Your task to perform on an android device: set default search engine in the chrome app Image 0: 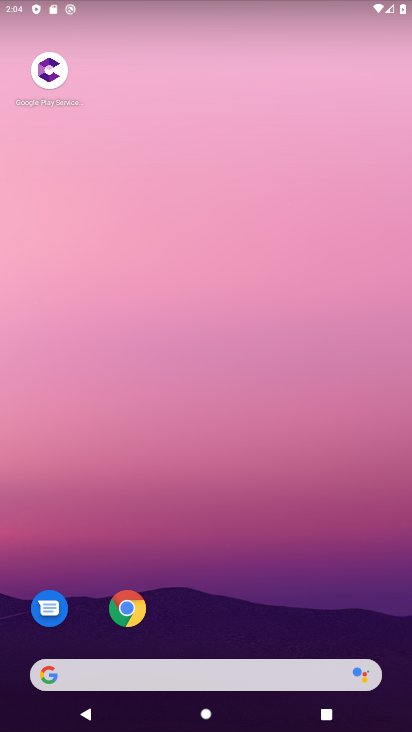
Step 0: drag from (167, 625) to (167, 10)
Your task to perform on an android device: set default search engine in the chrome app Image 1: 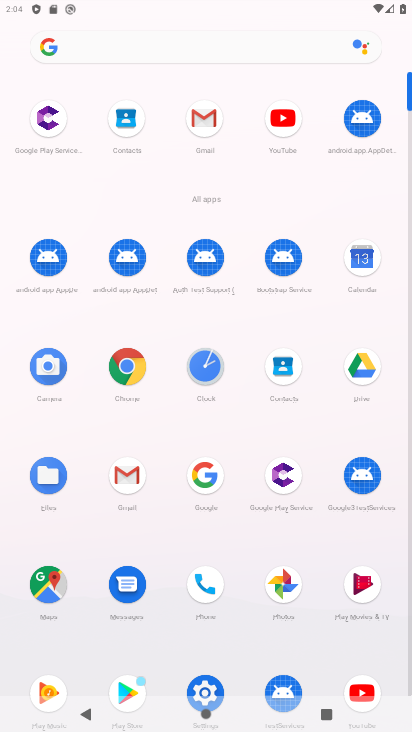
Step 1: click (121, 370)
Your task to perform on an android device: set default search engine in the chrome app Image 2: 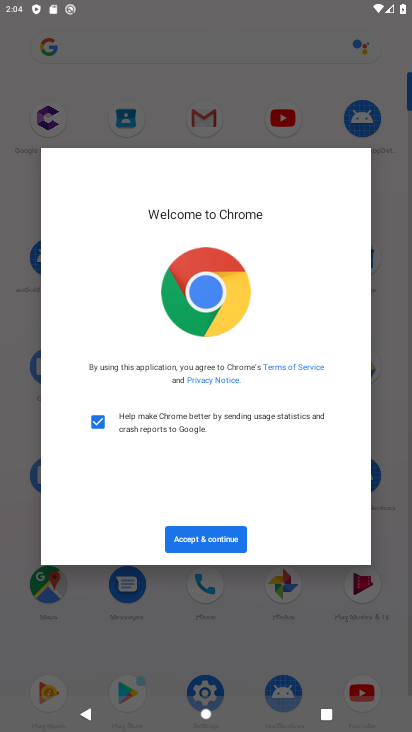
Step 2: click (188, 547)
Your task to perform on an android device: set default search engine in the chrome app Image 3: 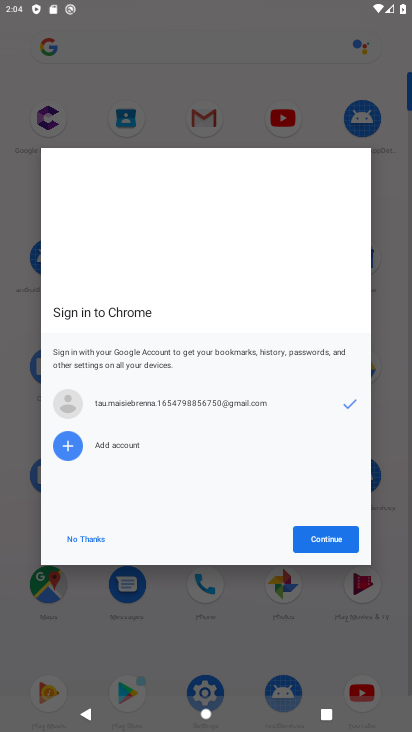
Step 3: click (347, 540)
Your task to perform on an android device: set default search engine in the chrome app Image 4: 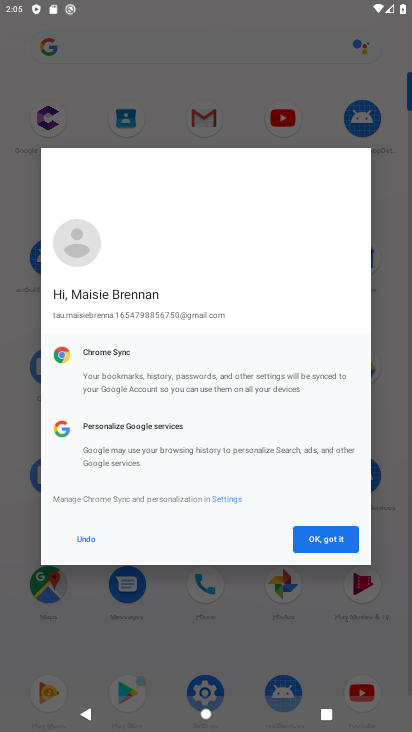
Step 4: click (347, 540)
Your task to perform on an android device: set default search engine in the chrome app Image 5: 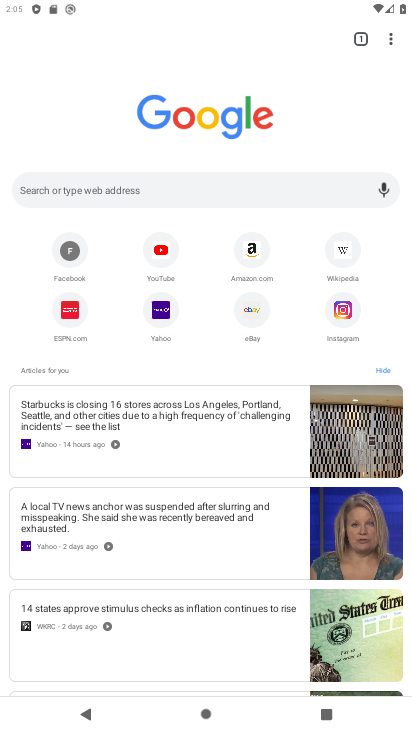
Step 5: click (389, 32)
Your task to perform on an android device: set default search engine in the chrome app Image 6: 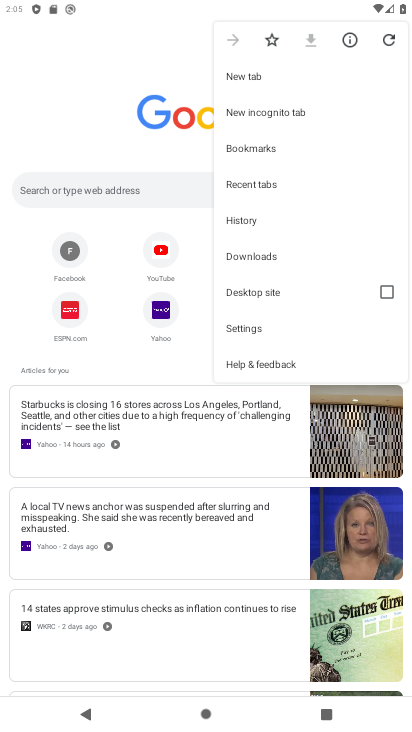
Step 6: click (247, 334)
Your task to perform on an android device: set default search engine in the chrome app Image 7: 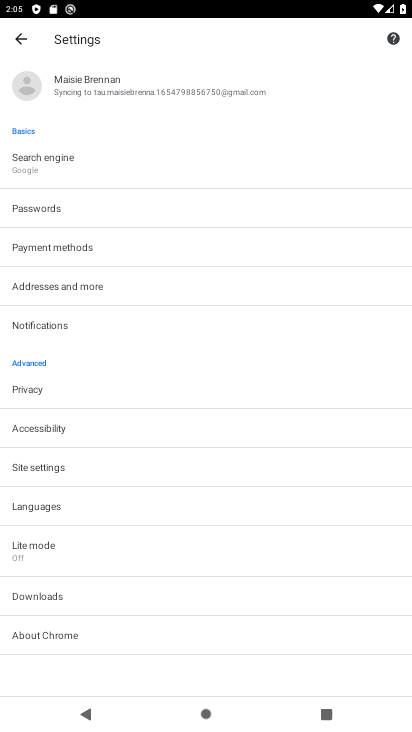
Step 7: click (57, 164)
Your task to perform on an android device: set default search engine in the chrome app Image 8: 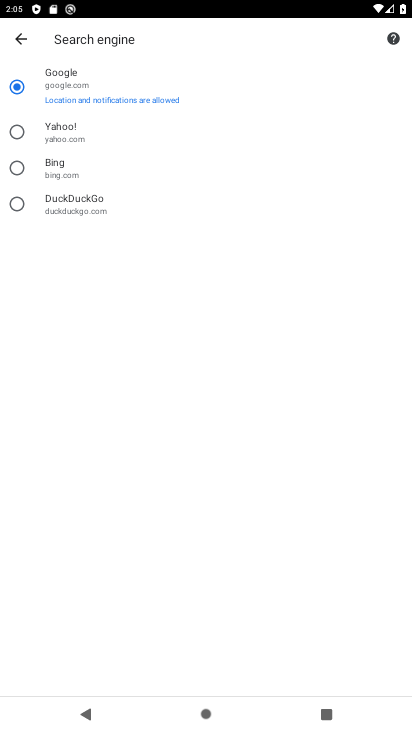
Step 8: click (21, 126)
Your task to perform on an android device: set default search engine in the chrome app Image 9: 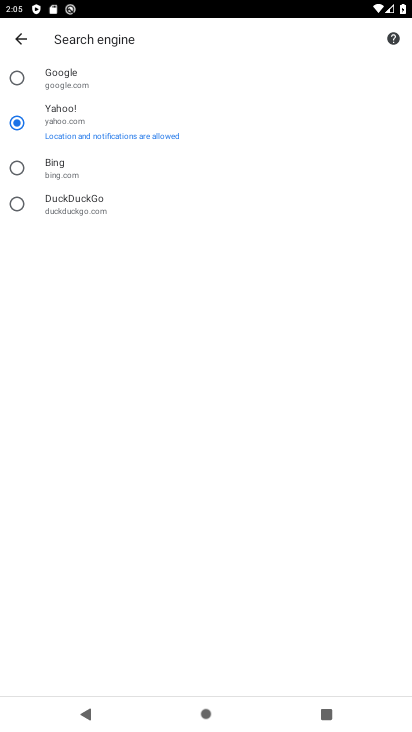
Step 9: task complete